Your task to perform on an android device: add a label to a message in the gmail app Image 0: 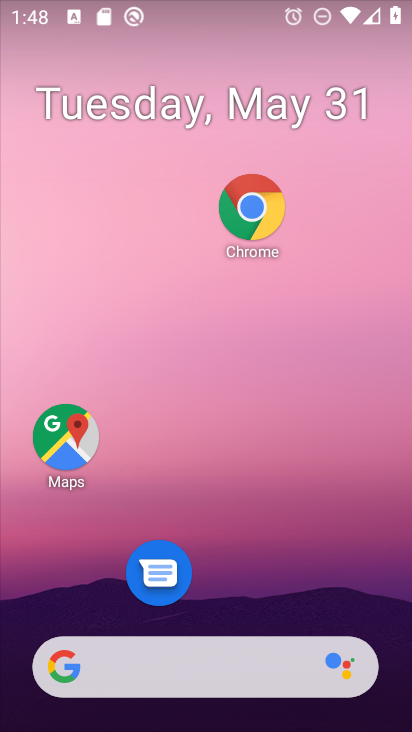
Step 0: drag from (239, 624) to (319, 113)
Your task to perform on an android device: add a label to a message in the gmail app Image 1: 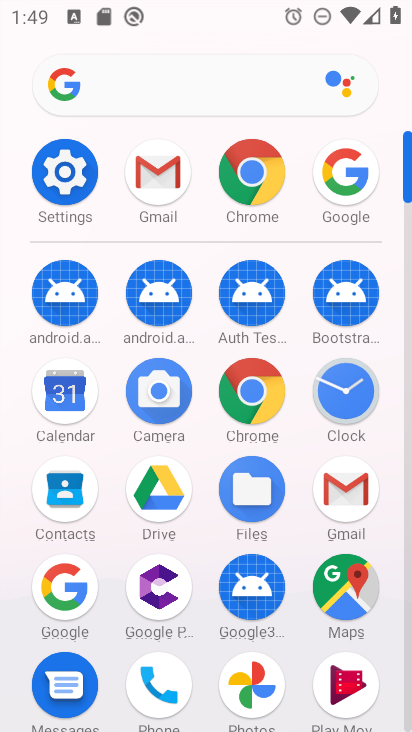
Step 1: click (341, 494)
Your task to perform on an android device: add a label to a message in the gmail app Image 2: 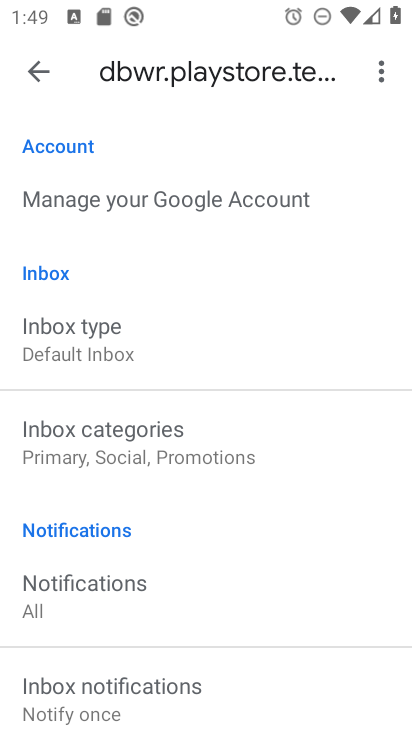
Step 2: drag from (204, 593) to (233, 368)
Your task to perform on an android device: add a label to a message in the gmail app Image 3: 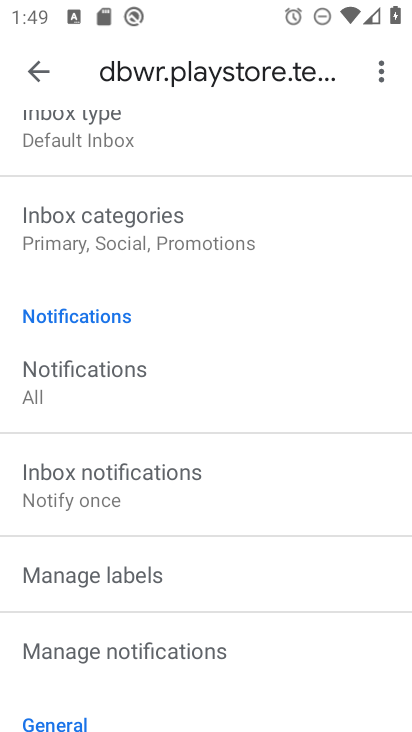
Step 3: click (48, 87)
Your task to perform on an android device: add a label to a message in the gmail app Image 4: 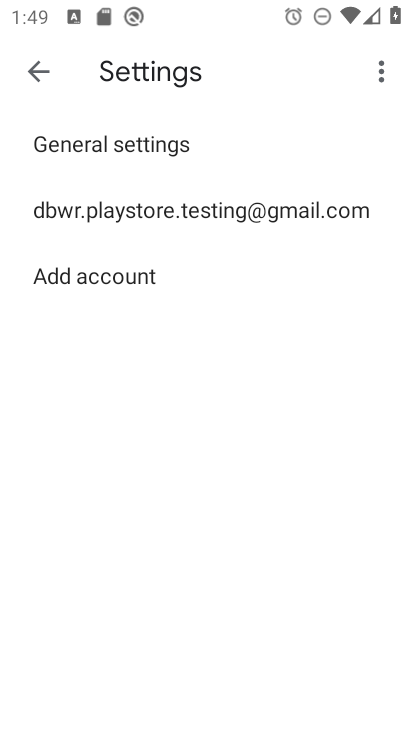
Step 4: click (45, 77)
Your task to perform on an android device: add a label to a message in the gmail app Image 5: 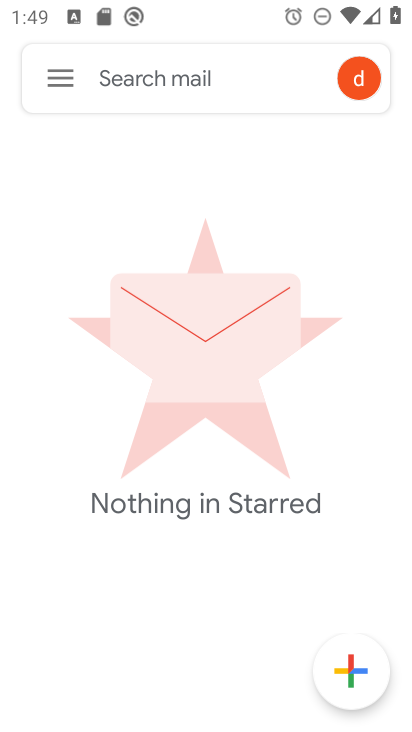
Step 5: click (64, 80)
Your task to perform on an android device: add a label to a message in the gmail app Image 6: 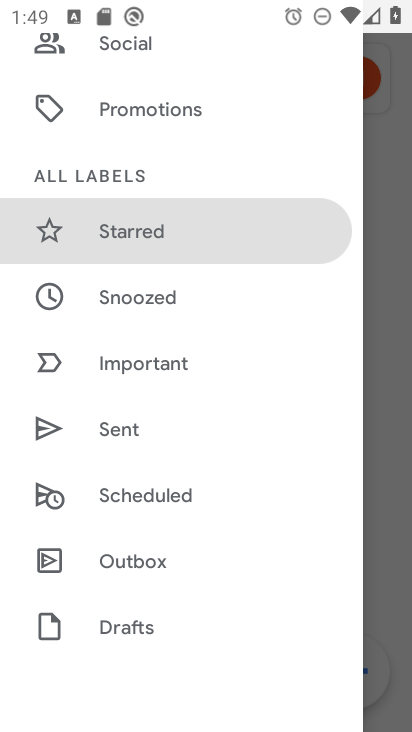
Step 6: drag from (149, 416) to (202, 186)
Your task to perform on an android device: add a label to a message in the gmail app Image 7: 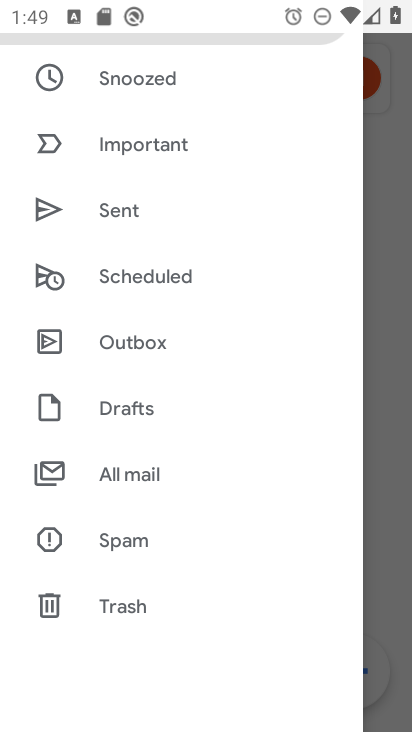
Step 7: click (138, 476)
Your task to perform on an android device: add a label to a message in the gmail app Image 8: 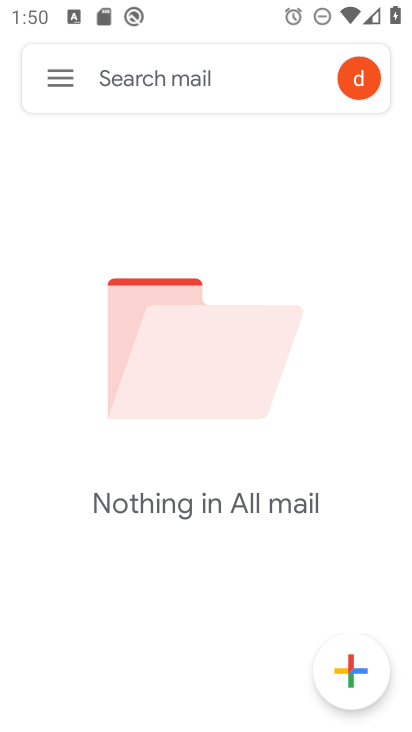
Step 8: task complete